Your task to perform on an android device: turn notification dots on Image 0: 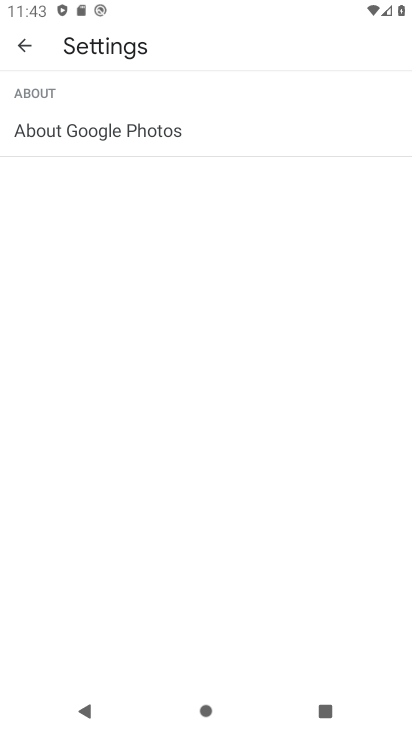
Step 0: press home button
Your task to perform on an android device: turn notification dots on Image 1: 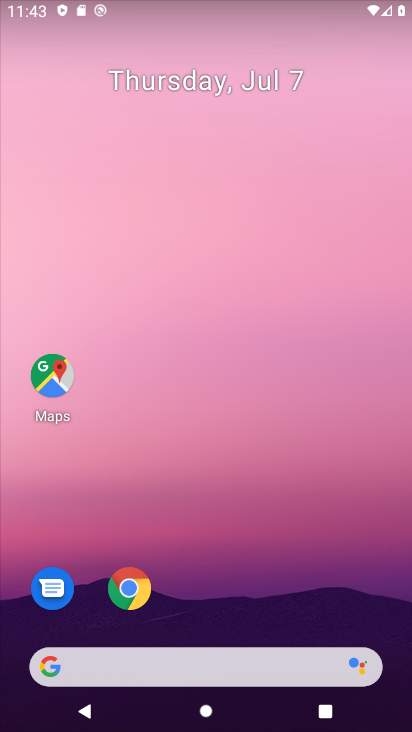
Step 1: drag from (231, 658) to (292, 195)
Your task to perform on an android device: turn notification dots on Image 2: 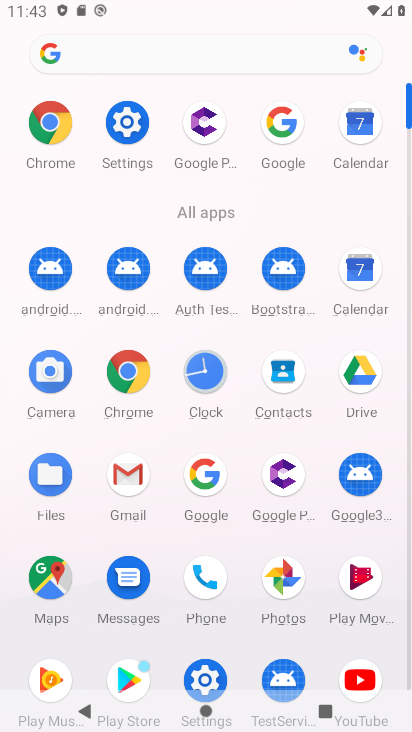
Step 2: click (136, 127)
Your task to perform on an android device: turn notification dots on Image 3: 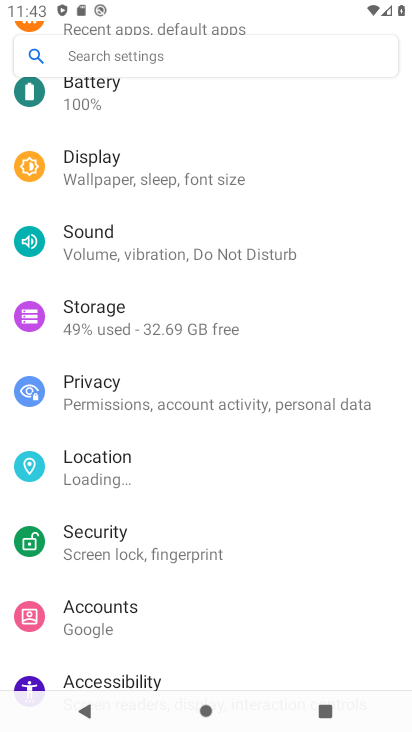
Step 3: drag from (189, 132) to (195, 575)
Your task to perform on an android device: turn notification dots on Image 4: 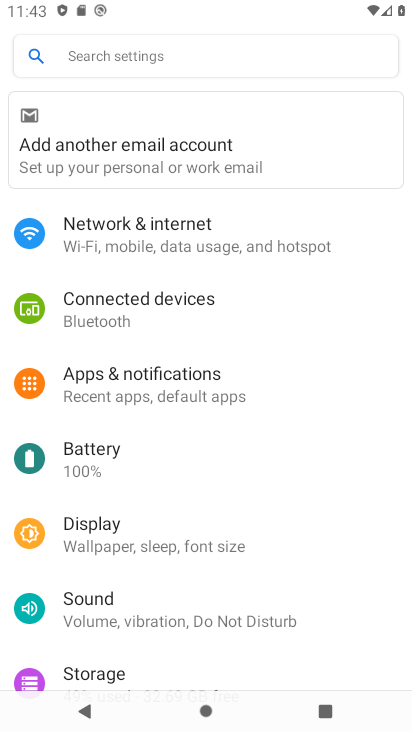
Step 4: click (178, 393)
Your task to perform on an android device: turn notification dots on Image 5: 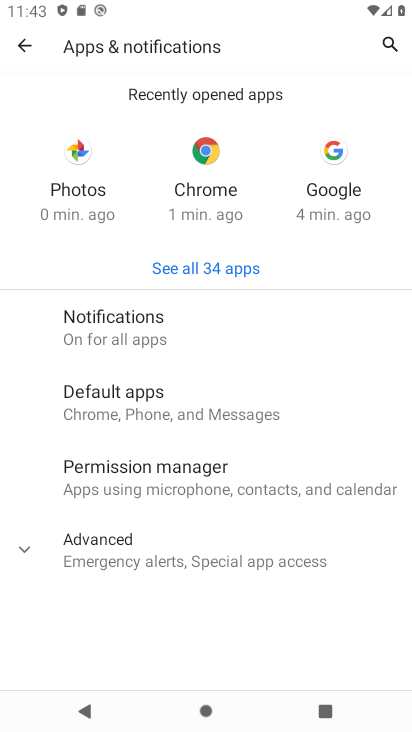
Step 5: click (118, 331)
Your task to perform on an android device: turn notification dots on Image 6: 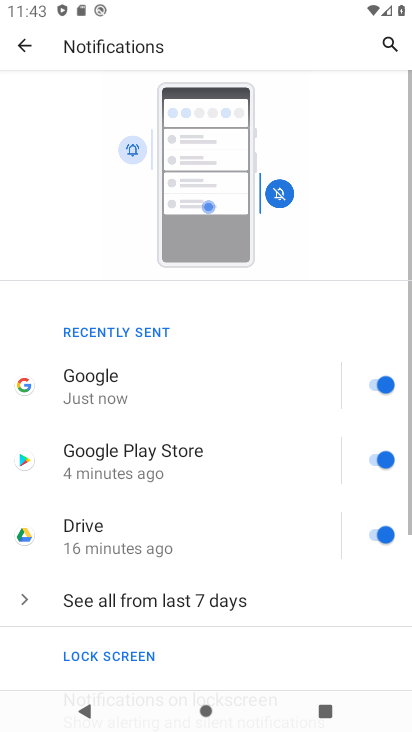
Step 6: drag from (147, 652) to (197, 259)
Your task to perform on an android device: turn notification dots on Image 7: 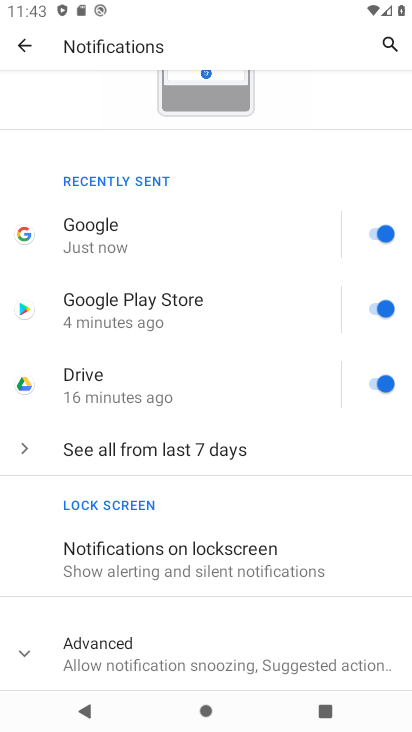
Step 7: click (184, 656)
Your task to perform on an android device: turn notification dots on Image 8: 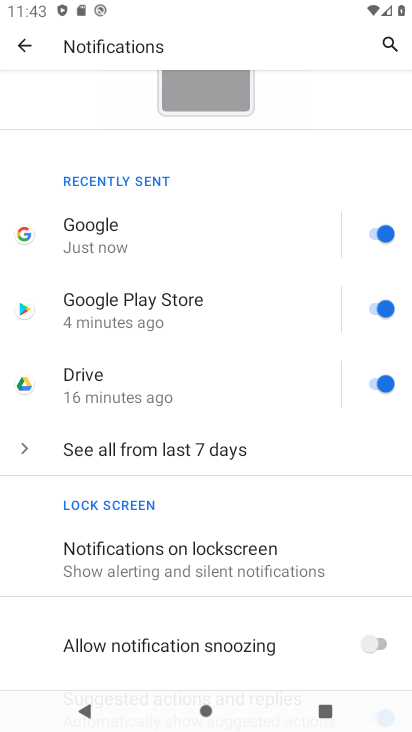
Step 8: task complete